Your task to perform on an android device: What is the recent news? Image 0: 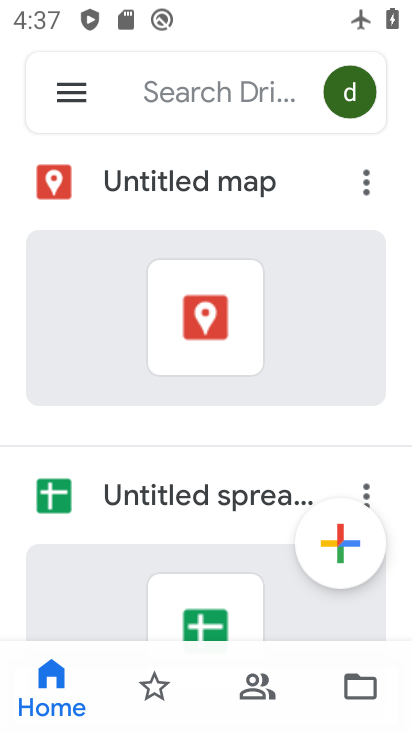
Step 0: press home button
Your task to perform on an android device: What is the recent news? Image 1: 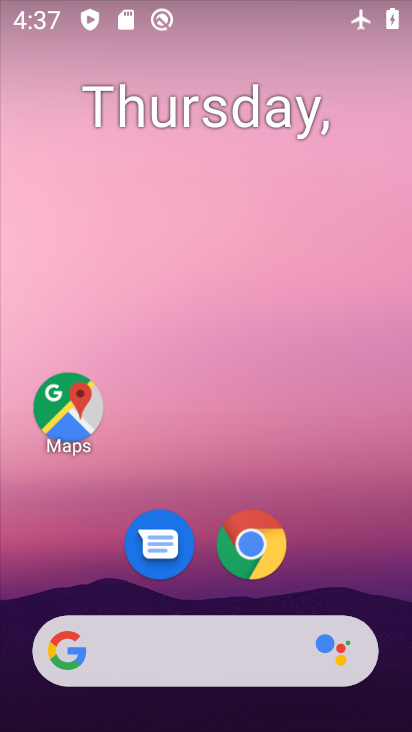
Step 1: click (249, 538)
Your task to perform on an android device: What is the recent news? Image 2: 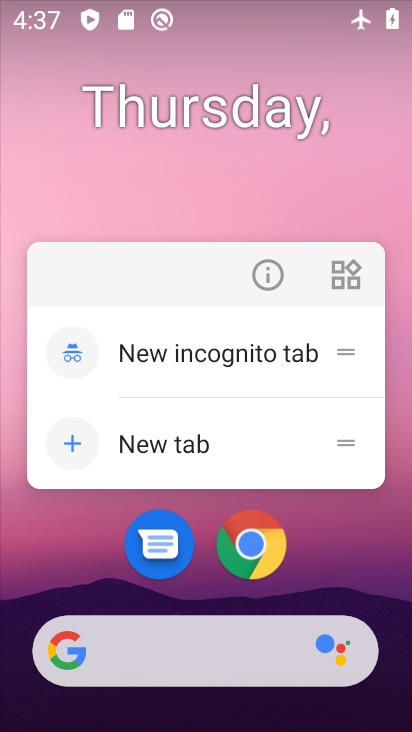
Step 2: click (249, 537)
Your task to perform on an android device: What is the recent news? Image 3: 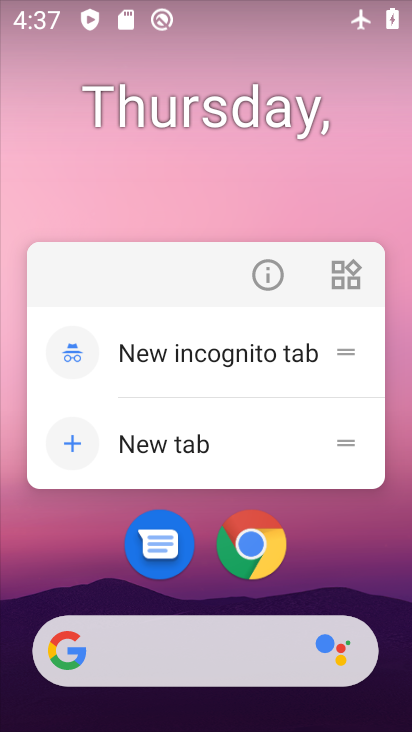
Step 3: click (267, 572)
Your task to perform on an android device: What is the recent news? Image 4: 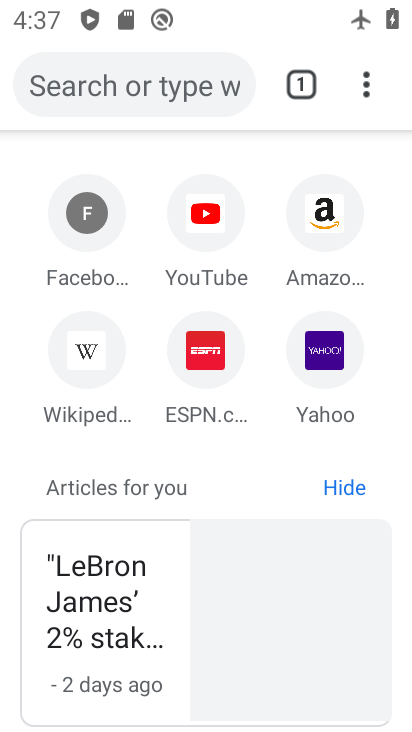
Step 4: click (119, 77)
Your task to perform on an android device: What is the recent news? Image 5: 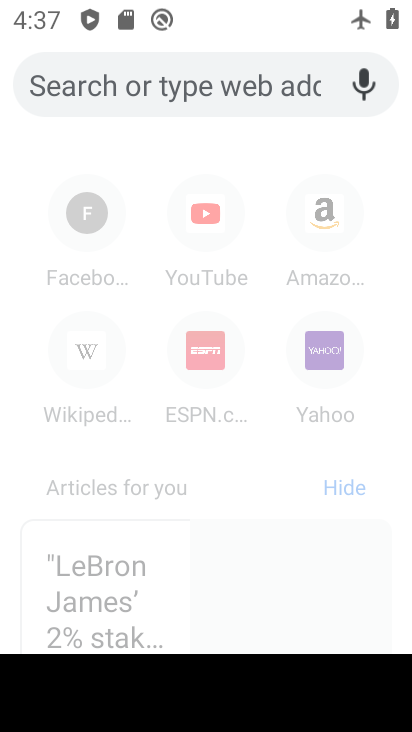
Step 5: click (144, 74)
Your task to perform on an android device: What is the recent news? Image 6: 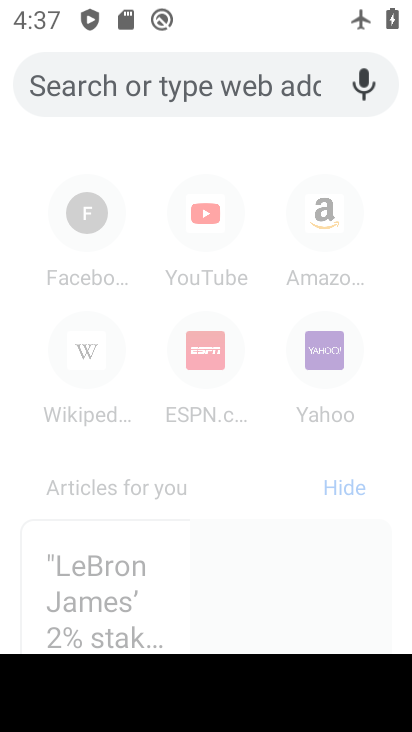
Step 6: type "recents news"
Your task to perform on an android device: What is the recent news? Image 7: 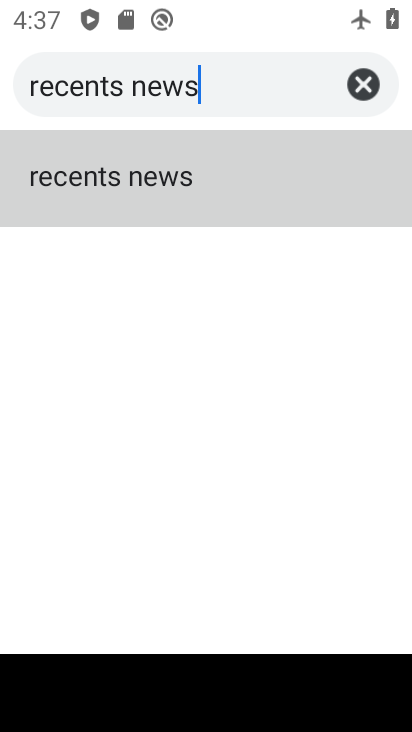
Step 7: type ""
Your task to perform on an android device: What is the recent news? Image 8: 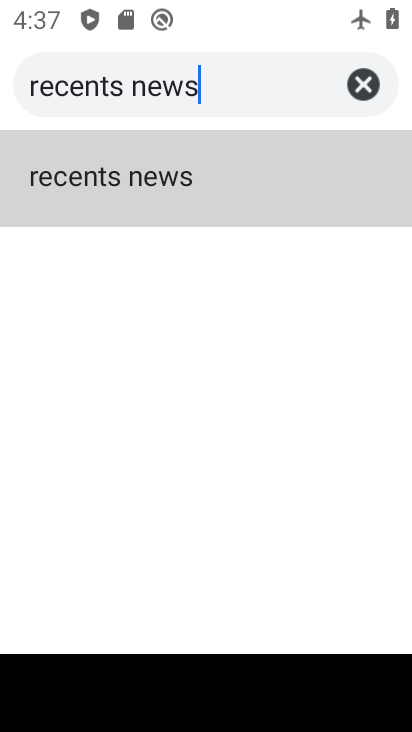
Step 8: click (169, 174)
Your task to perform on an android device: What is the recent news? Image 9: 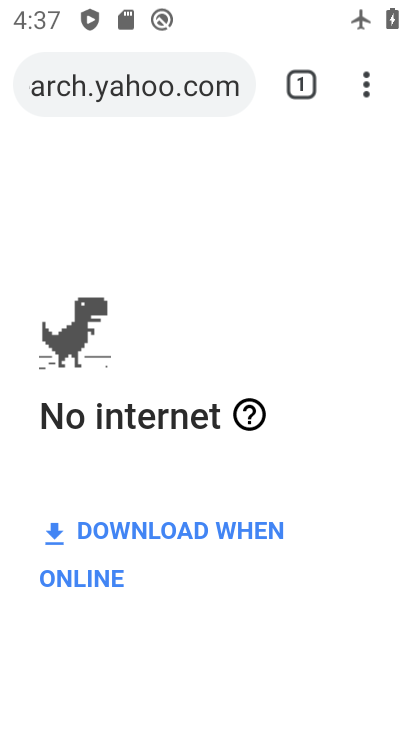
Step 9: task complete